Your task to perform on an android device: set an alarm Image 0: 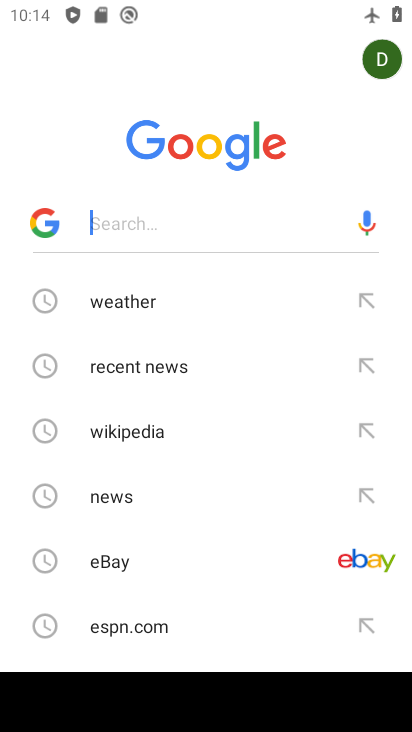
Step 0: press home button
Your task to perform on an android device: set an alarm Image 1: 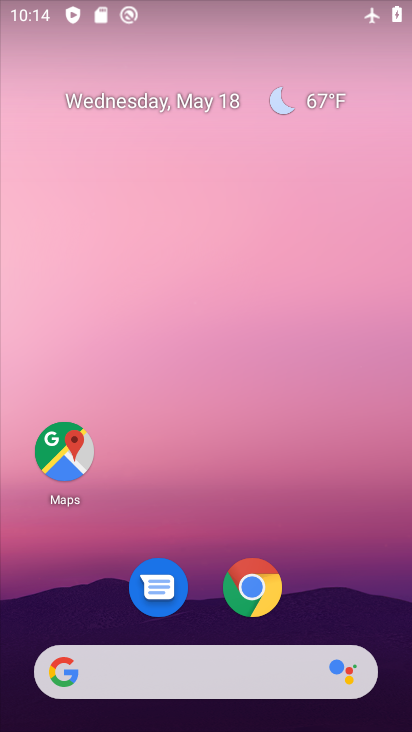
Step 1: drag from (333, 557) to (306, 137)
Your task to perform on an android device: set an alarm Image 2: 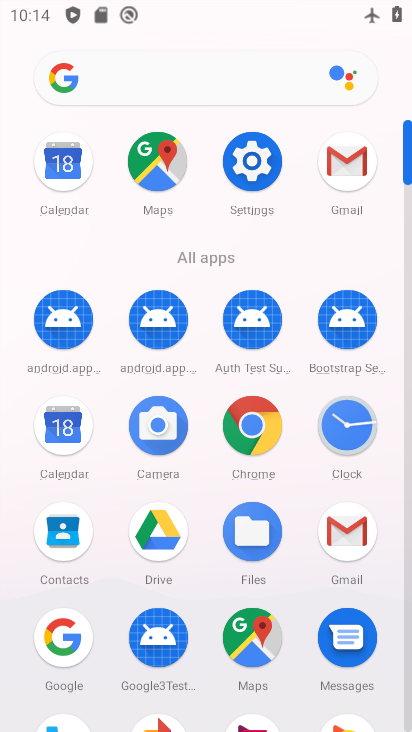
Step 2: click (356, 420)
Your task to perform on an android device: set an alarm Image 3: 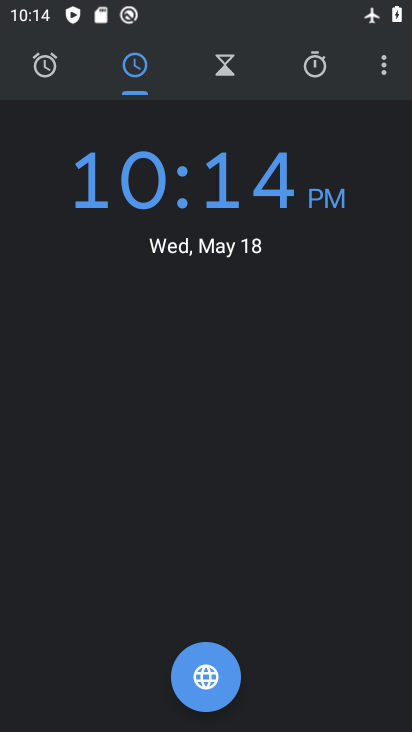
Step 3: click (58, 61)
Your task to perform on an android device: set an alarm Image 4: 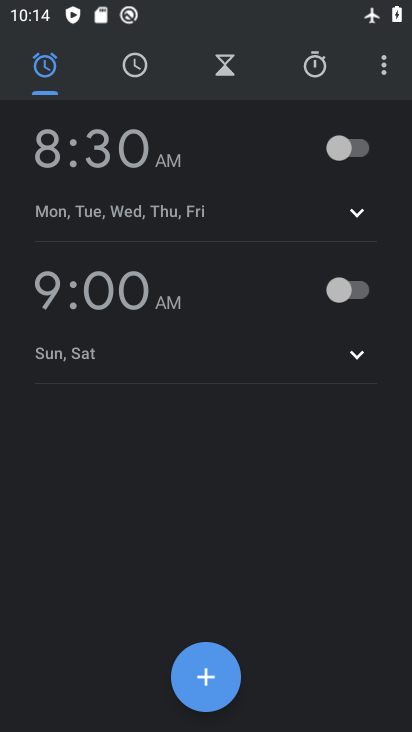
Step 4: click (210, 675)
Your task to perform on an android device: set an alarm Image 5: 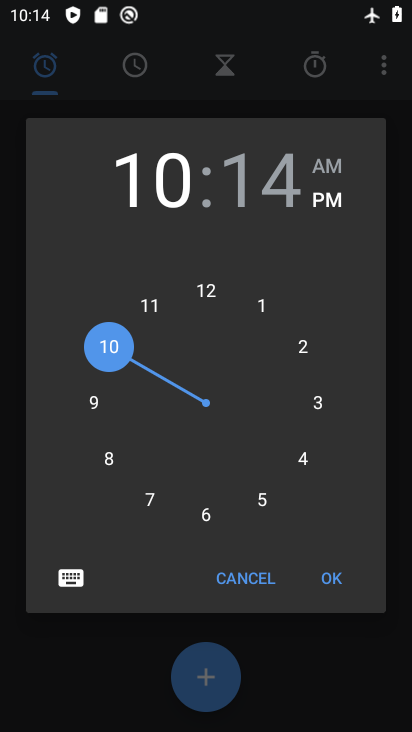
Step 5: click (206, 515)
Your task to perform on an android device: set an alarm Image 6: 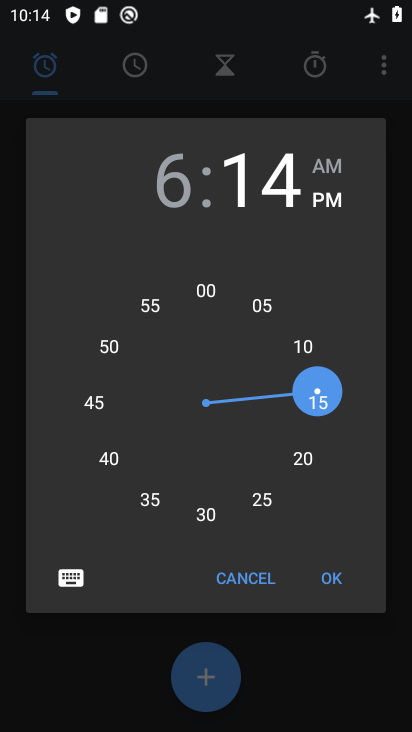
Step 6: click (308, 390)
Your task to perform on an android device: set an alarm Image 7: 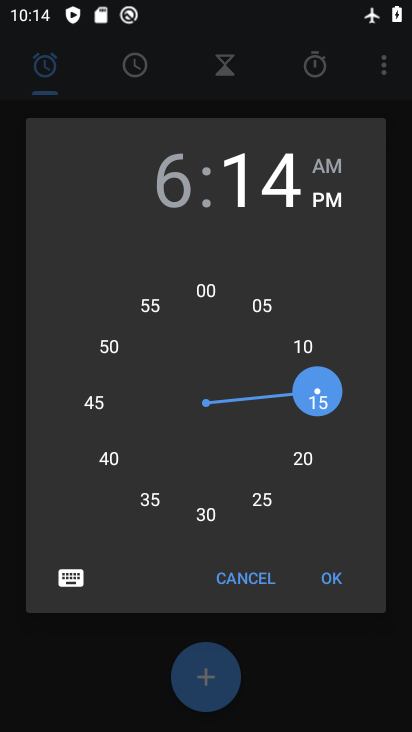
Step 7: click (309, 391)
Your task to perform on an android device: set an alarm Image 8: 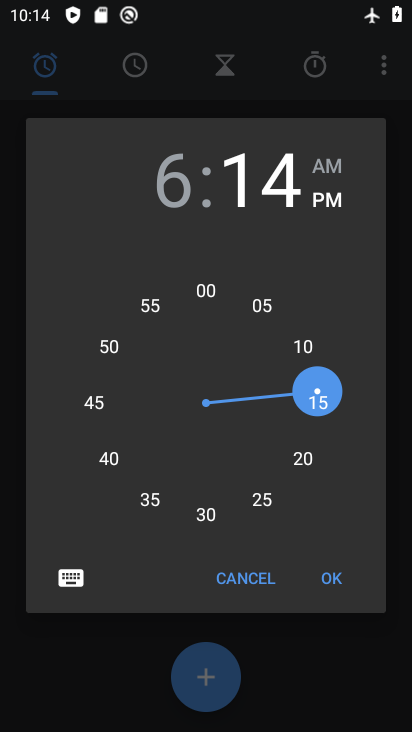
Step 8: click (327, 170)
Your task to perform on an android device: set an alarm Image 9: 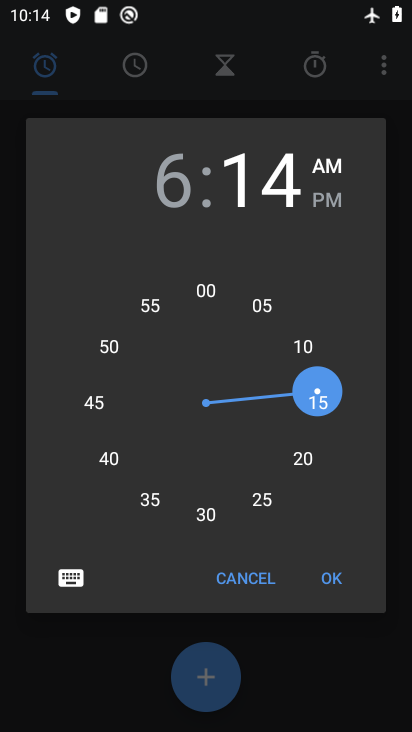
Step 9: click (327, 170)
Your task to perform on an android device: set an alarm Image 10: 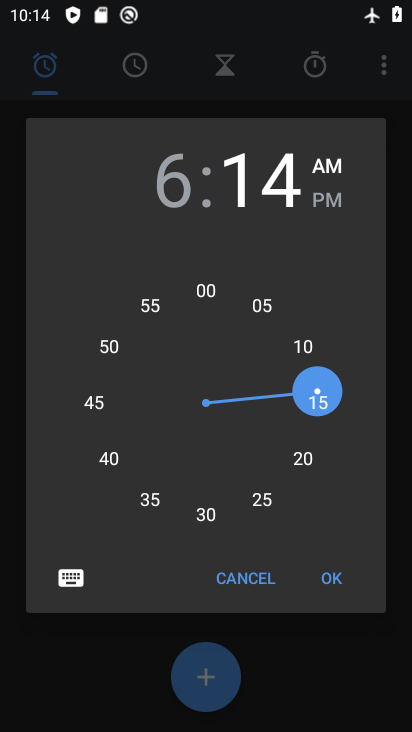
Step 10: click (343, 574)
Your task to perform on an android device: set an alarm Image 11: 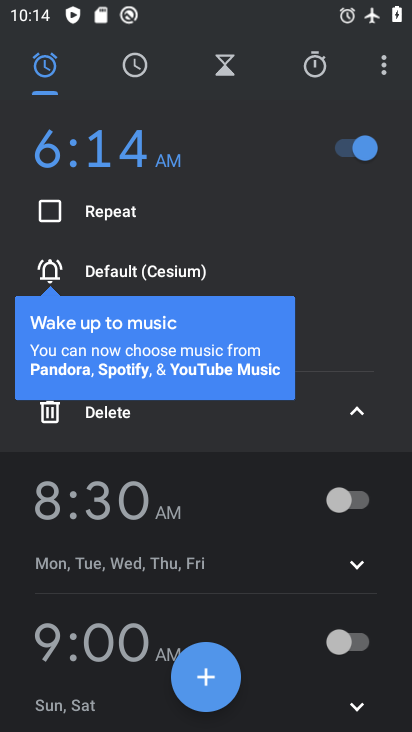
Step 11: task complete